Your task to perform on an android device: Check the weather Image 0: 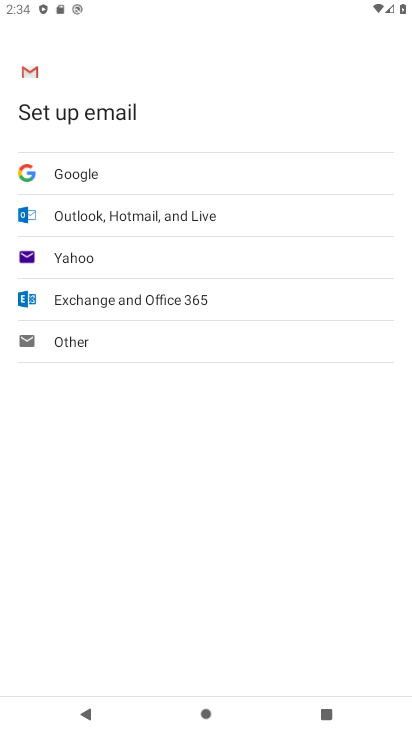
Step 0: press home button
Your task to perform on an android device: Check the weather Image 1: 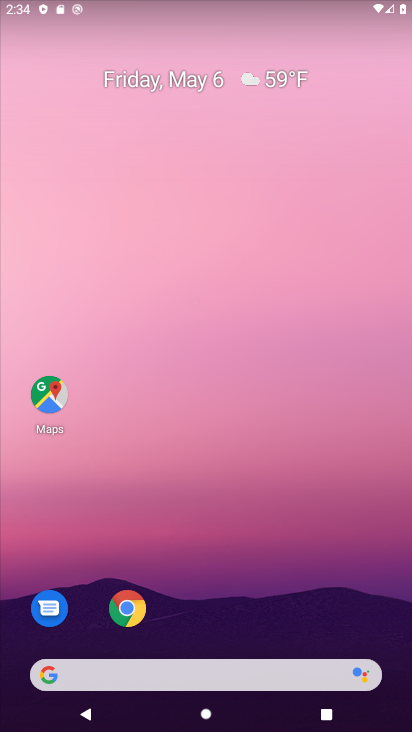
Step 1: click (275, 75)
Your task to perform on an android device: Check the weather Image 2: 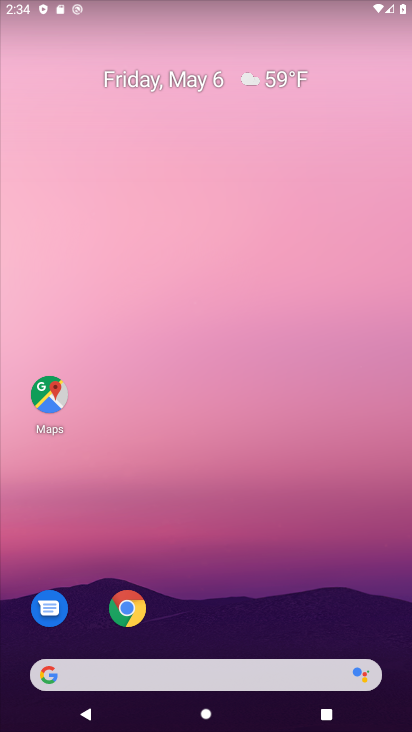
Step 2: click (275, 79)
Your task to perform on an android device: Check the weather Image 3: 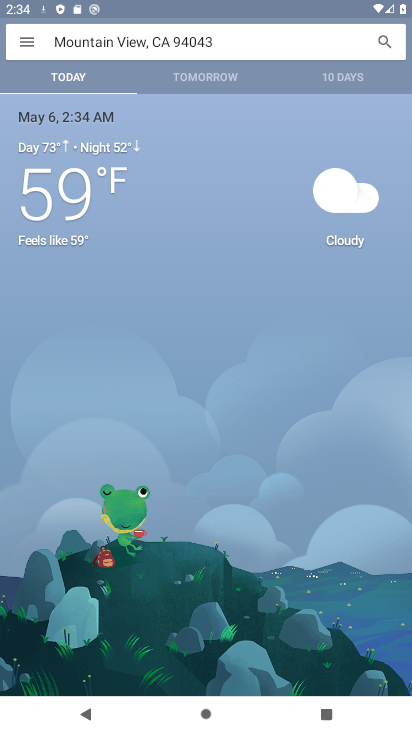
Step 3: task complete